Your task to perform on an android device: open sync settings in chrome Image 0: 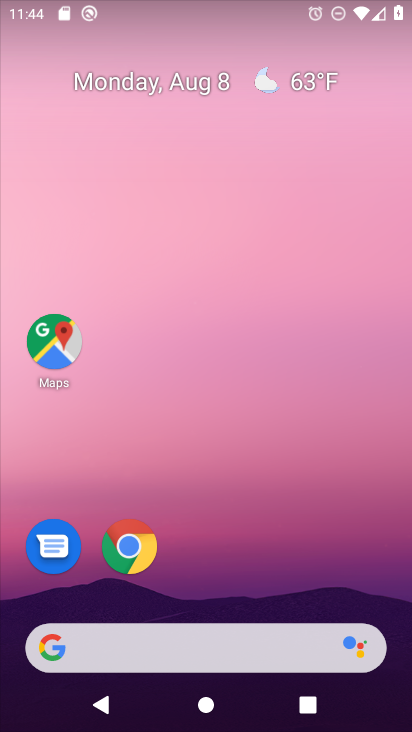
Step 0: press home button
Your task to perform on an android device: open sync settings in chrome Image 1: 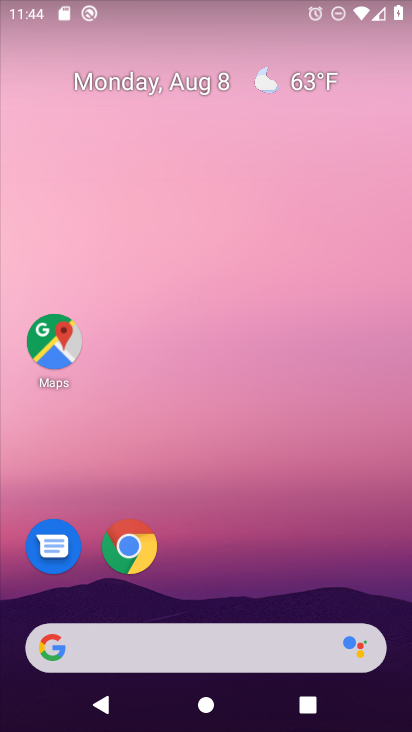
Step 1: click (125, 542)
Your task to perform on an android device: open sync settings in chrome Image 2: 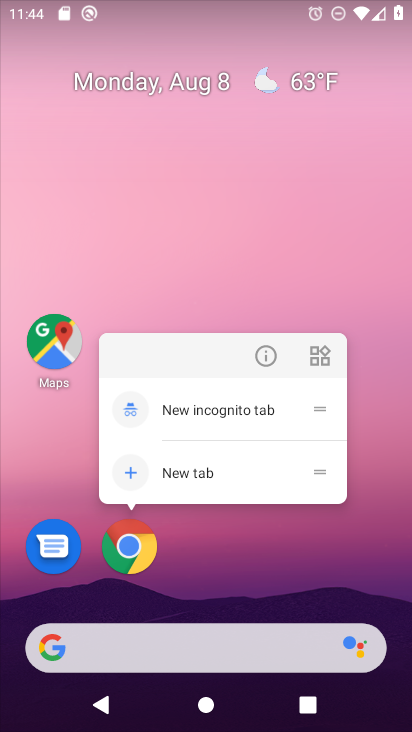
Step 2: click (125, 542)
Your task to perform on an android device: open sync settings in chrome Image 3: 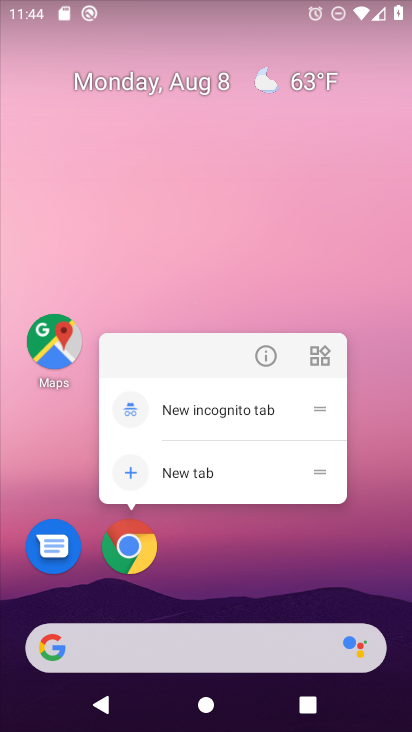
Step 3: click (240, 574)
Your task to perform on an android device: open sync settings in chrome Image 4: 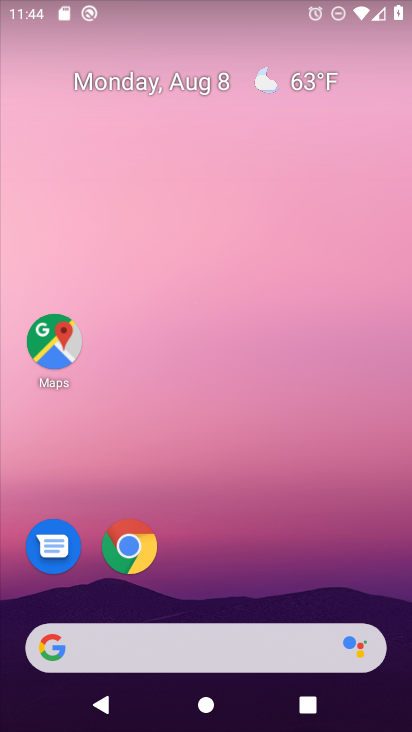
Step 4: drag from (274, 611) to (255, 0)
Your task to perform on an android device: open sync settings in chrome Image 5: 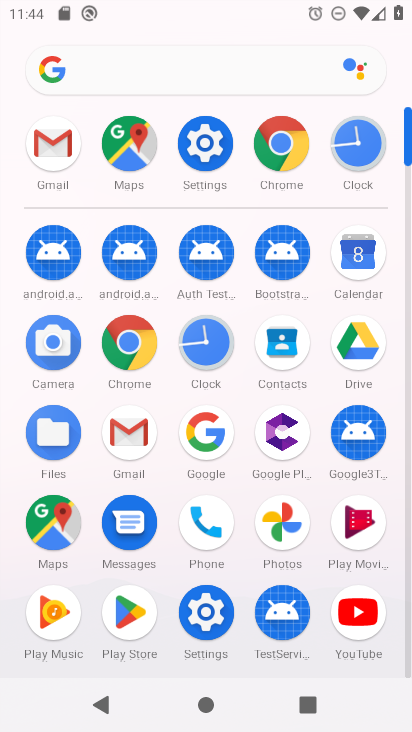
Step 5: click (278, 136)
Your task to perform on an android device: open sync settings in chrome Image 6: 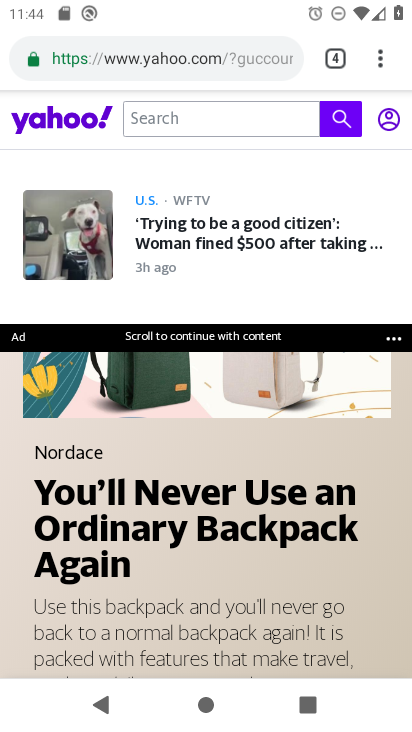
Step 6: click (377, 52)
Your task to perform on an android device: open sync settings in chrome Image 7: 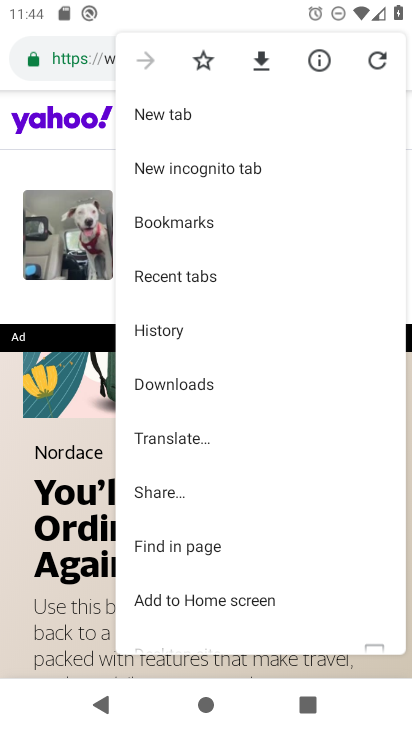
Step 7: drag from (259, 575) to (288, 90)
Your task to perform on an android device: open sync settings in chrome Image 8: 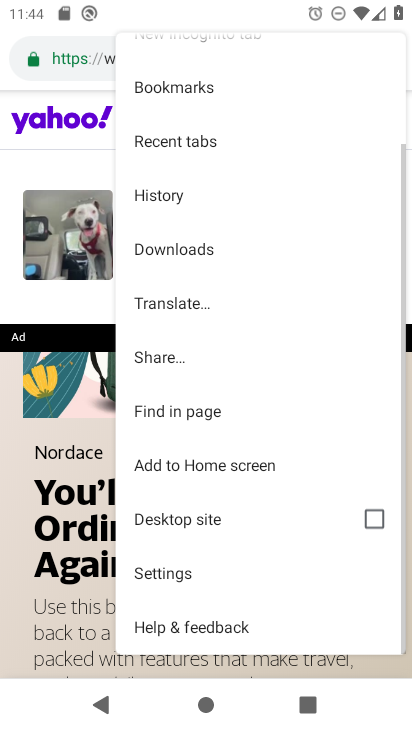
Step 8: click (200, 571)
Your task to perform on an android device: open sync settings in chrome Image 9: 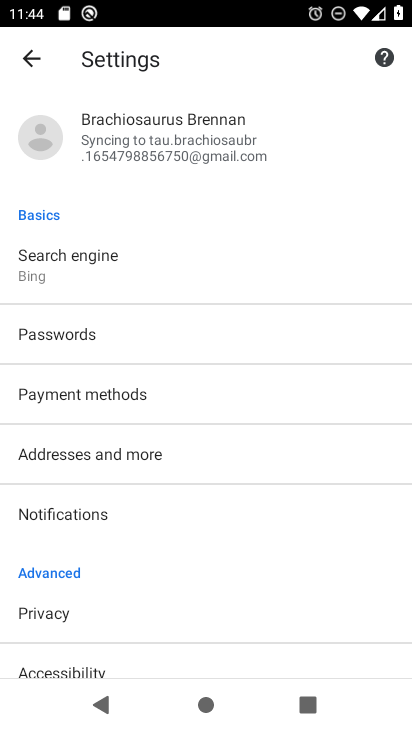
Step 9: click (149, 140)
Your task to perform on an android device: open sync settings in chrome Image 10: 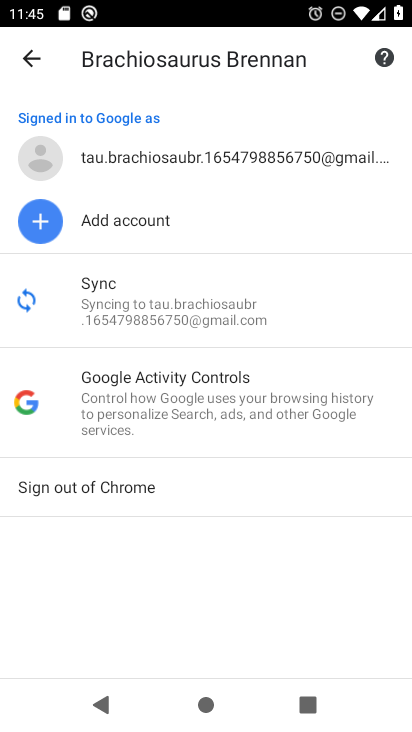
Step 10: click (135, 296)
Your task to perform on an android device: open sync settings in chrome Image 11: 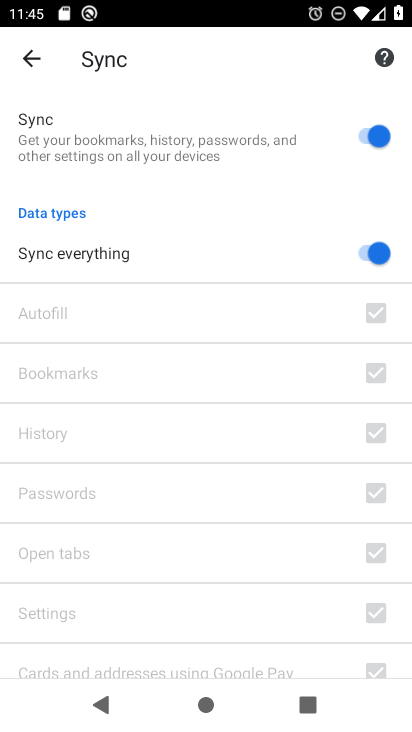
Step 11: task complete